Your task to perform on an android device: Search for the best rated mechanical keyboard on Amazon. Image 0: 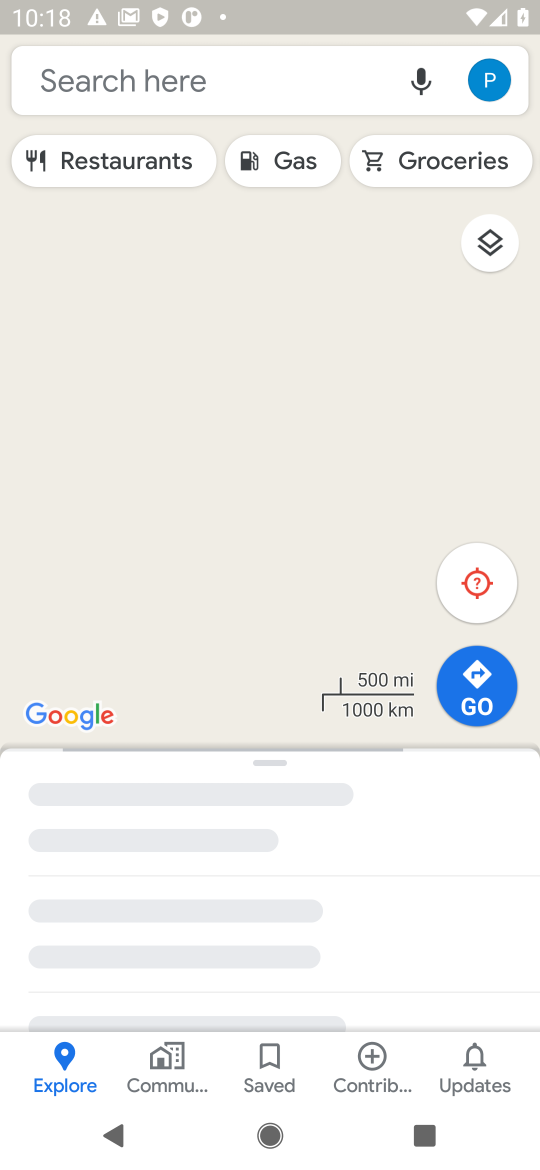
Step 0: press home button
Your task to perform on an android device: Search for the best rated mechanical keyboard on Amazon. Image 1: 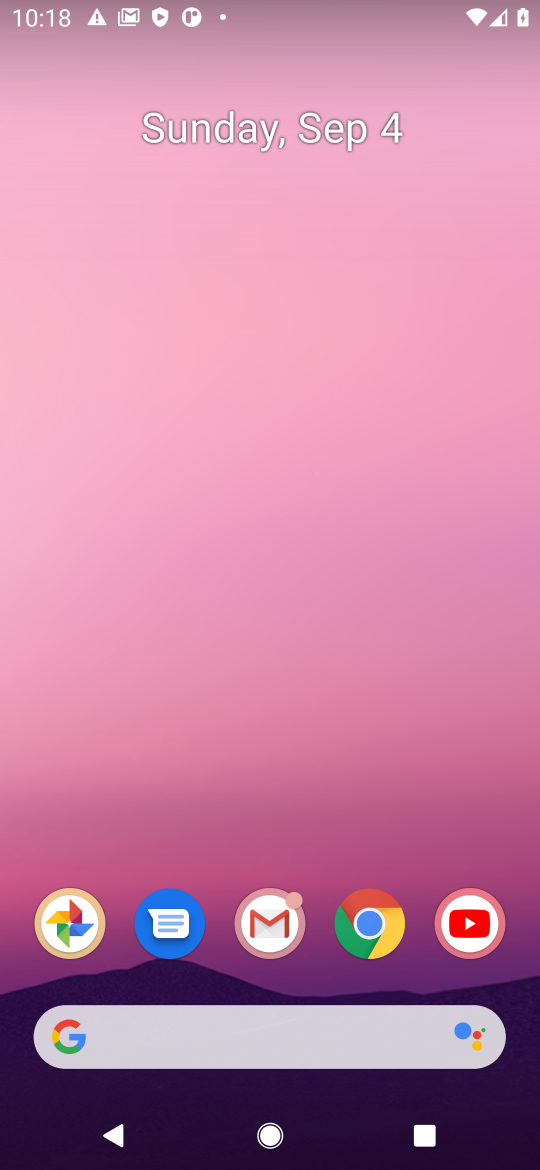
Step 1: click (374, 1048)
Your task to perform on an android device: Search for the best rated mechanical keyboard on Amazon. Image 2: 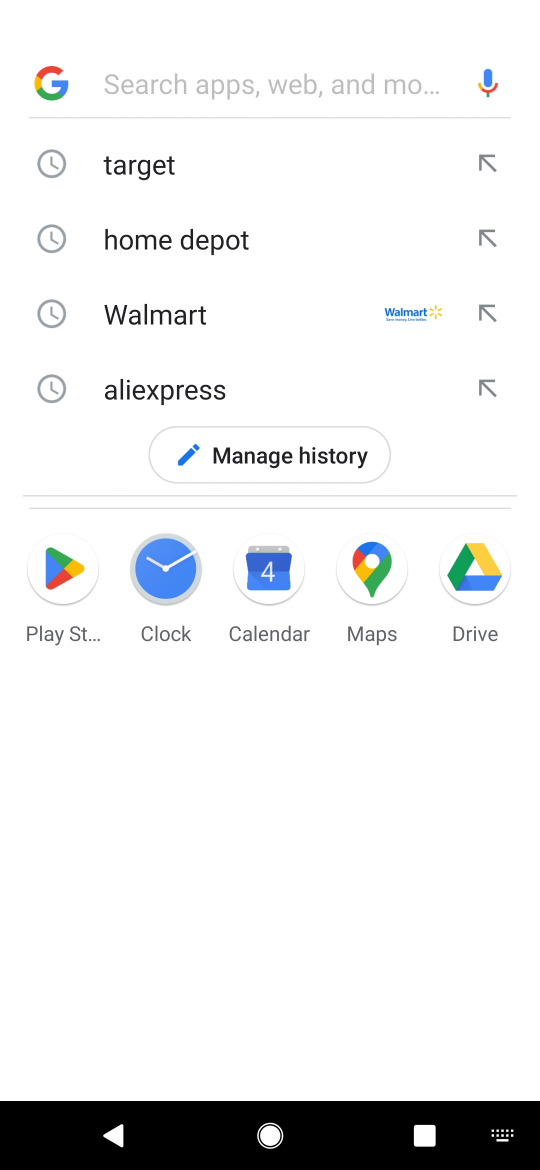
Step 2: press enter
Your task to perform on an android device: Search for the best rated mechanical keyboard on Amazon. Image 3: 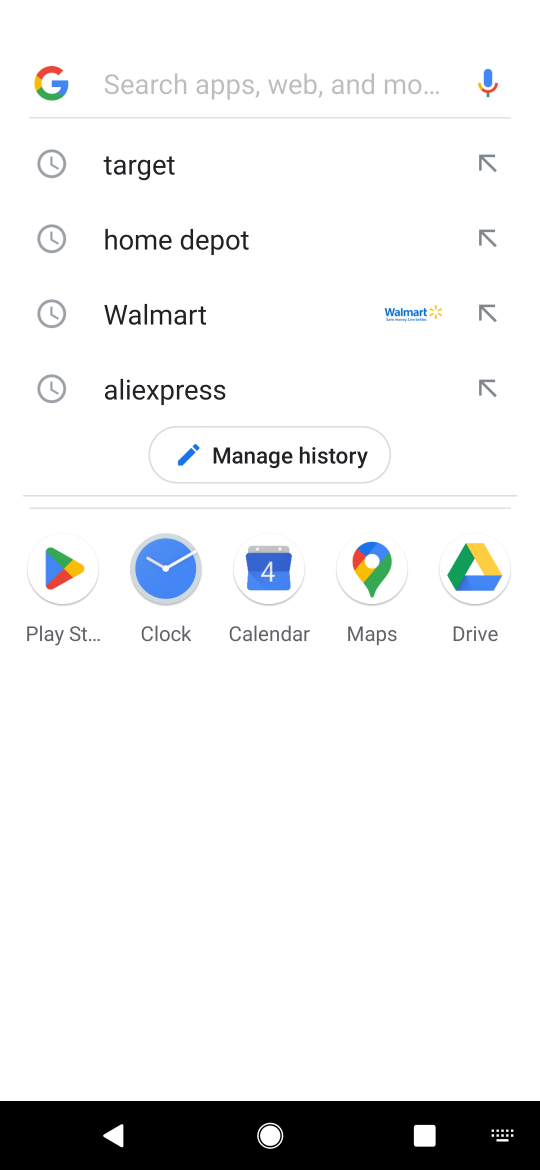
Step 3: type "amazon"
Your task to perform on an android device: Search for the best rated mechanical keyboard on Amazon. Image 4: 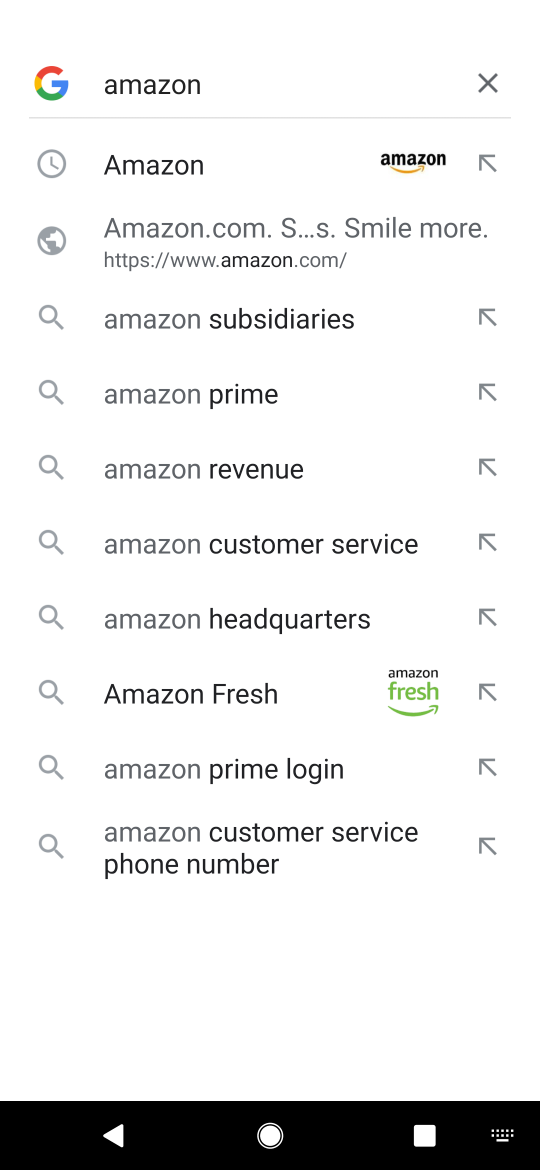
Step 4: click (222, 166)
Your task to perform on an android device: Search for the best rated mechanical keyboard on Amazon. Image 5: 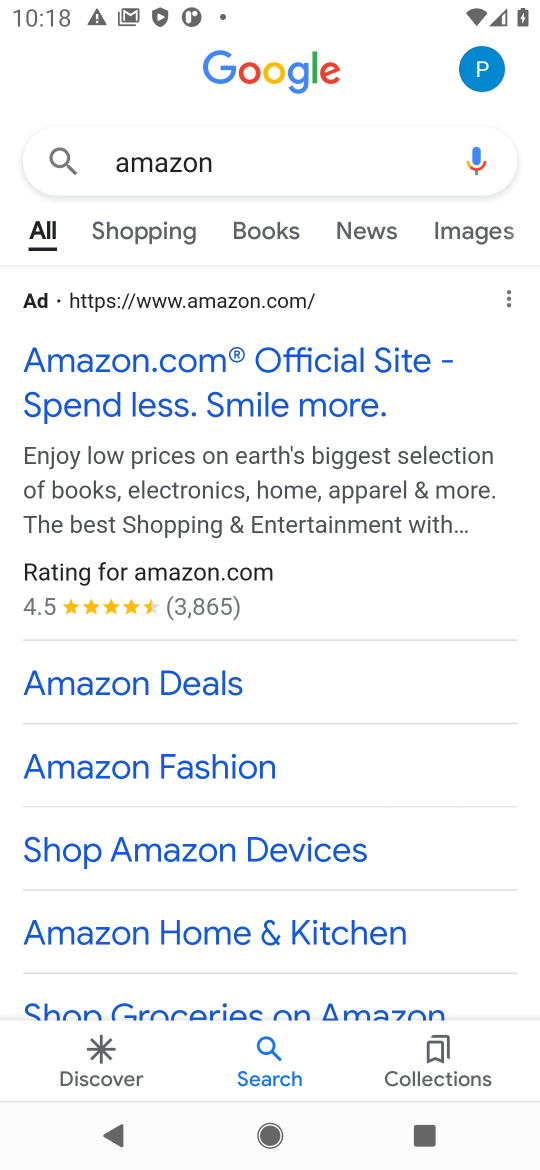
Step 5: click (277, 374)
Your task to perform on an android device: Search for the best rated mechanical keyboard on Amazon. Image 6: 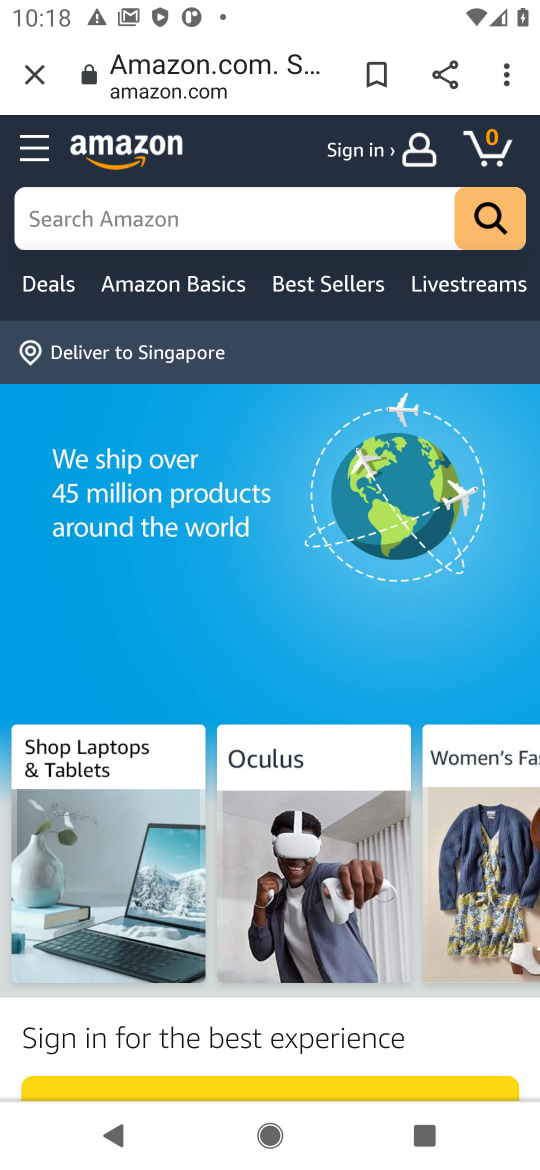
Step 6: click (201, 204)
Your task to perform on an android device: Search for the best rated mechanical keyboard on Amazon. Image 7: 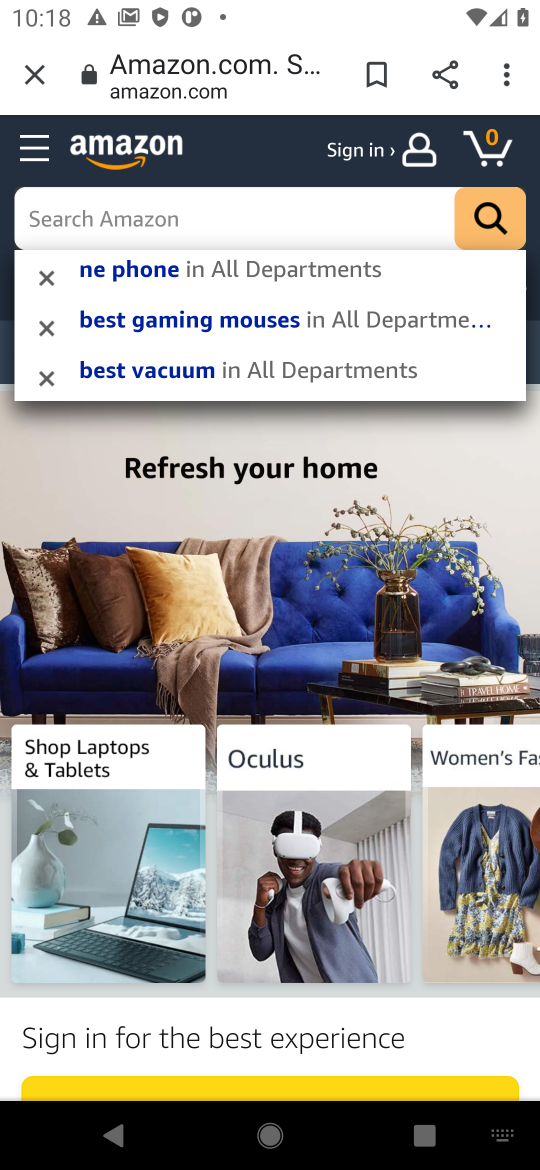
Step 7: type "mechanical keyboard"
Your task to perform on an android device: Search for the best rated mechanical keyboard on Amazon. Image 8: 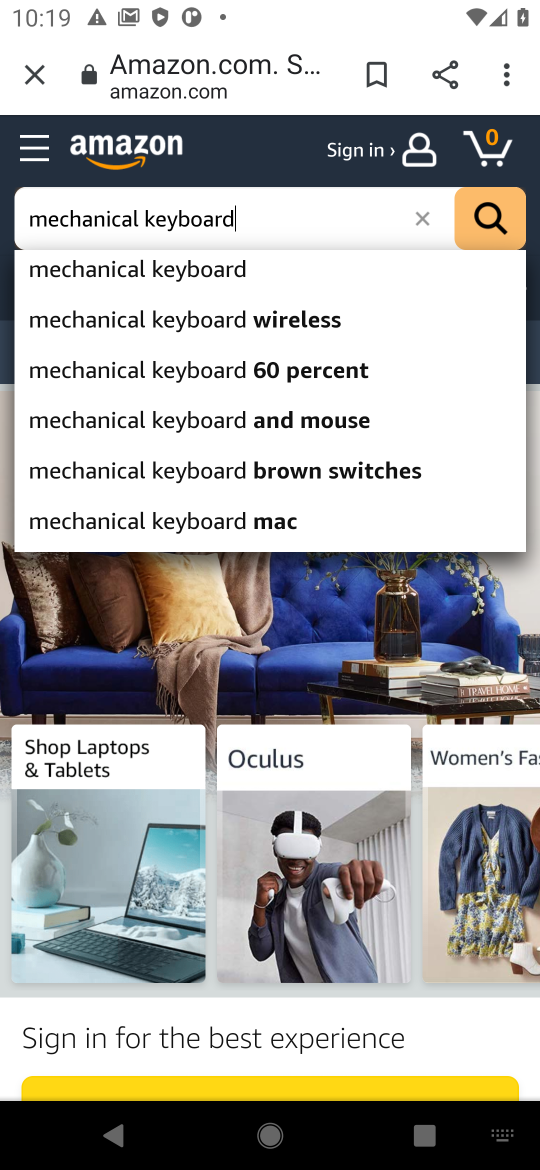
Step 8: click (216, 264)
Your task to perform on an android device: Search for the best rated mechanical keyboard on Amazon. Image 9: 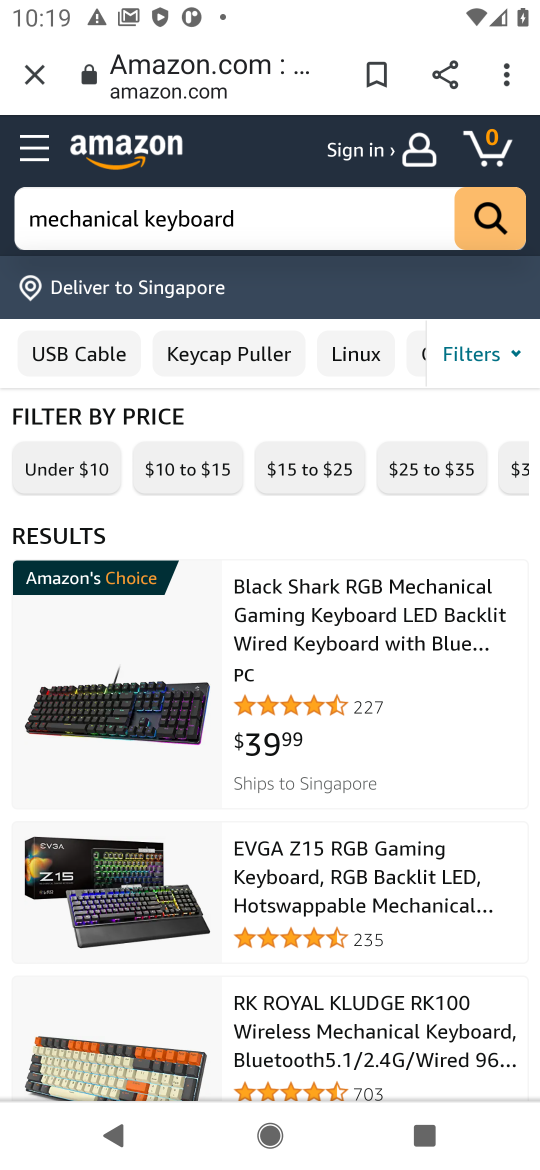
Step 9: task complete